Your task to perform on an android device: visit the assistant section in the google photos Image 0: 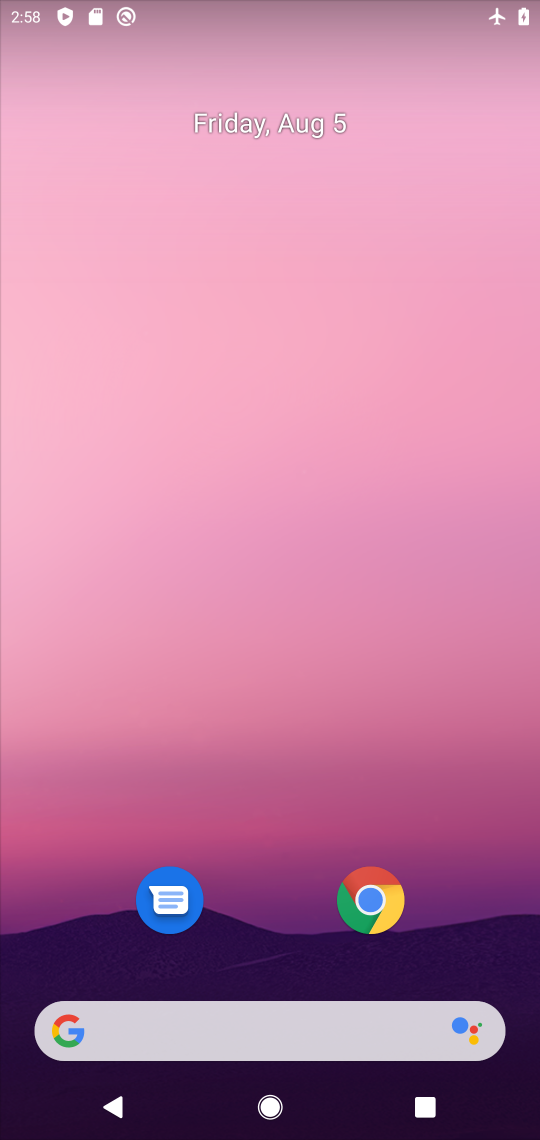
Step 0: drag from (278, 954) to (202, 186)
Your task to perform on an android device: visit the assistant section in the google photos Image 1: 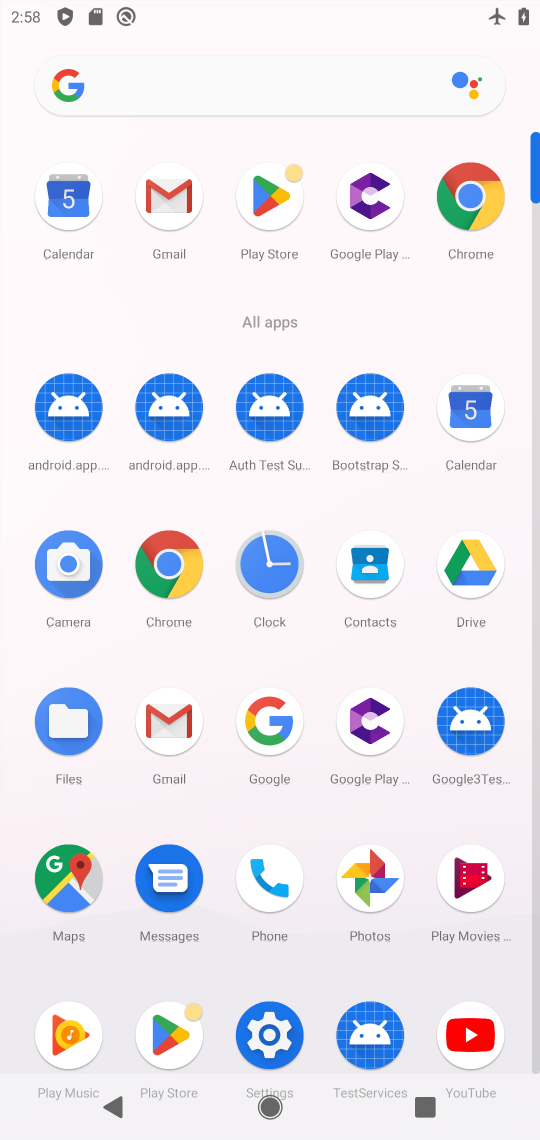
Step 1: click (370, 884)
Your task to perform on an android device: visit the assistant section in the google photos Image 2: 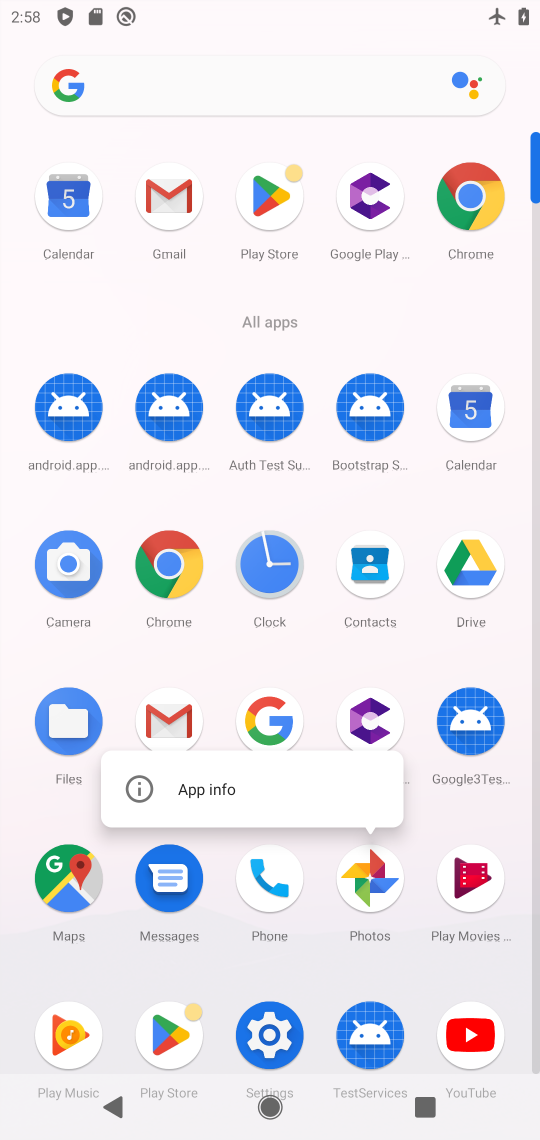
Step 2: click (361, 882)
Your task to perform on an android device: visit the assistant section in the google photos Image 3: 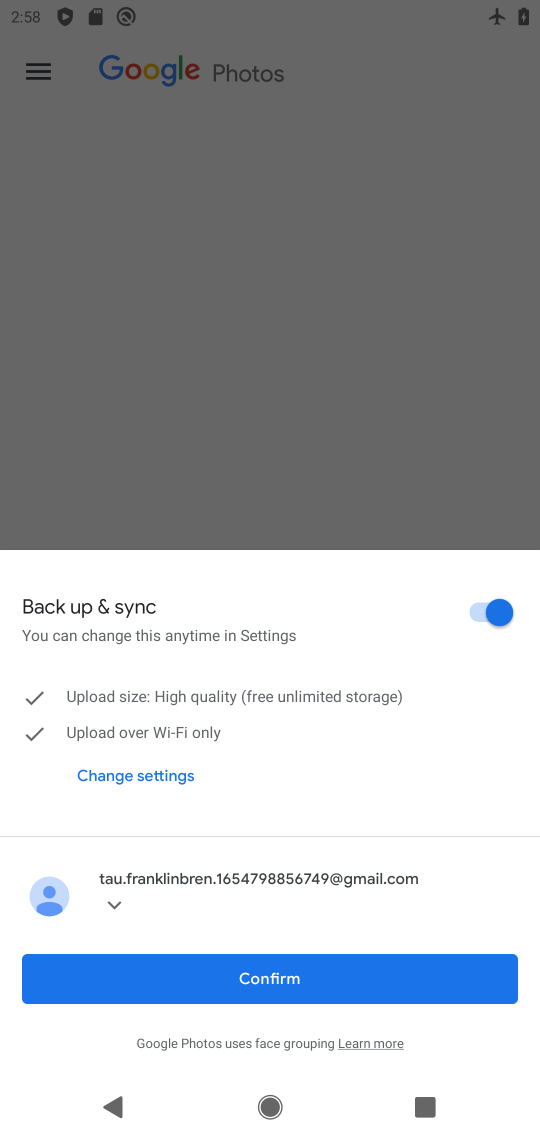
Step 3: click (332, 984)
Your task to perform on an android device: visit the assistant section in the google photos Image 4: 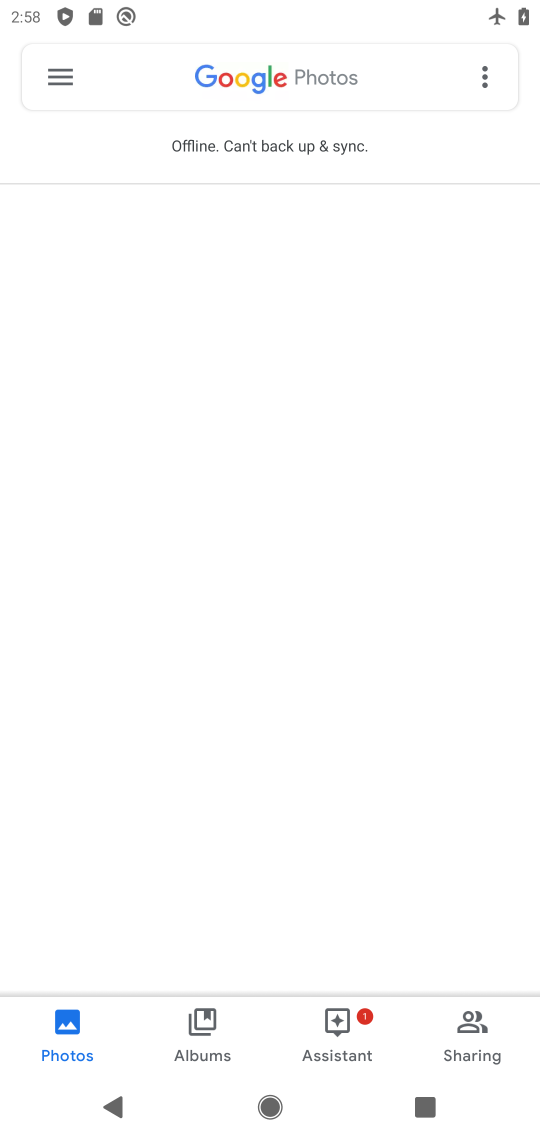
Step 4: click (336, 1017)
Your task to perform on an android device: visit the assistant section in the google photos Image 5: 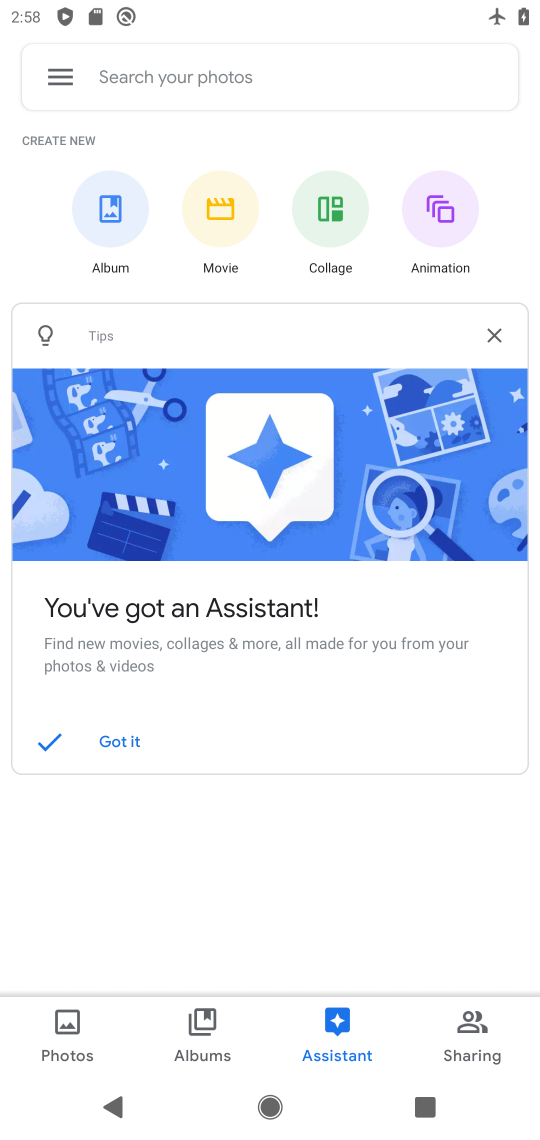
Step 5: task complete